Your task to perform on an android device: change the clock display to digital Image 0: 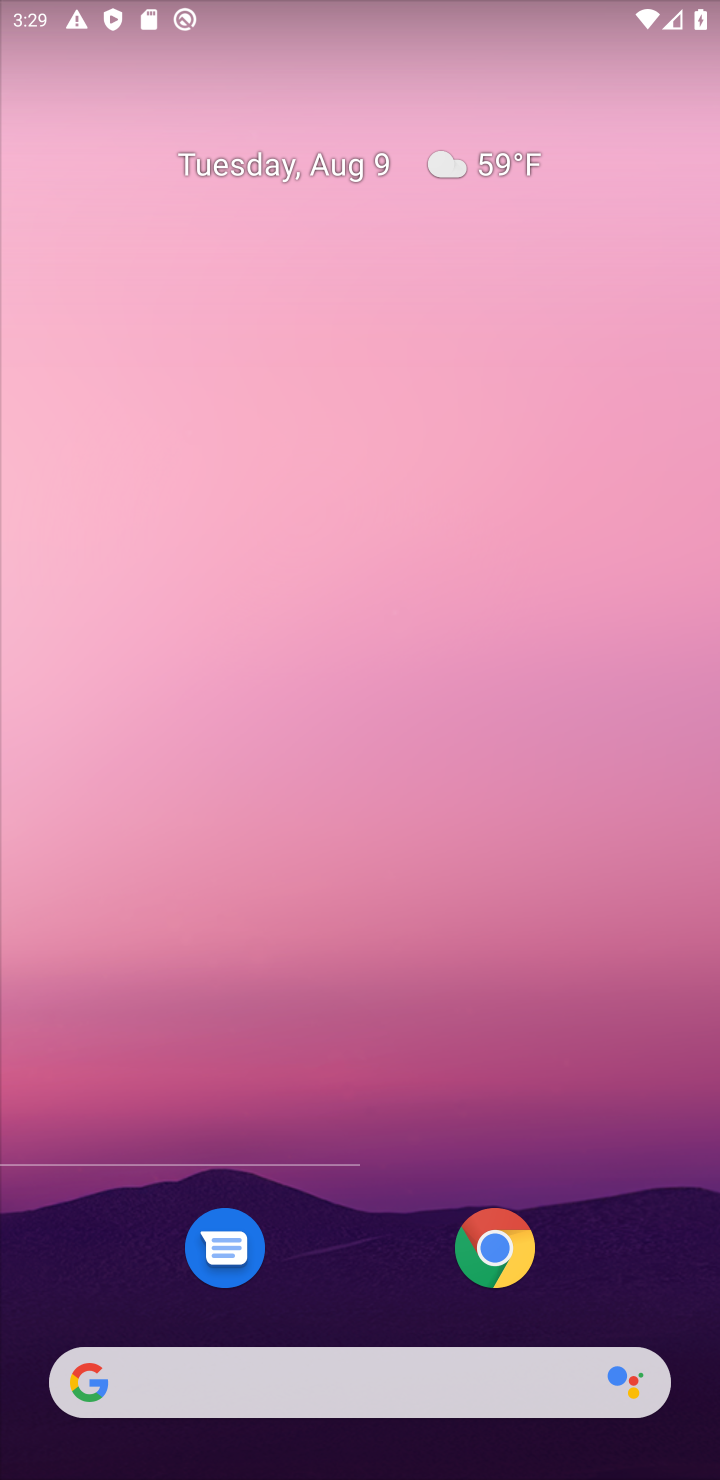
Step 0: press home button
Your task to perform on an android device: change the clock display to digital Image 1: 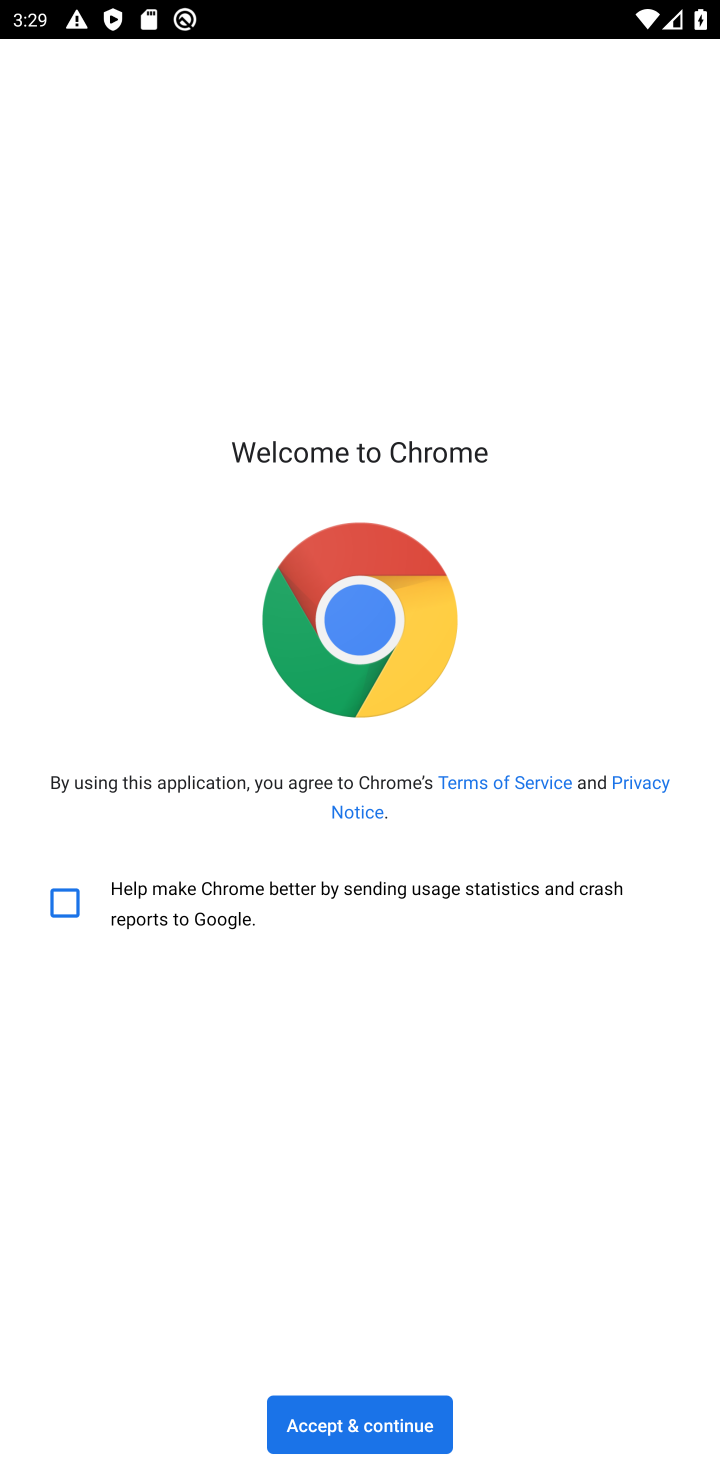
Step 1: press home button
Your task to perform on an android device: change the clock display to digital Image 2: 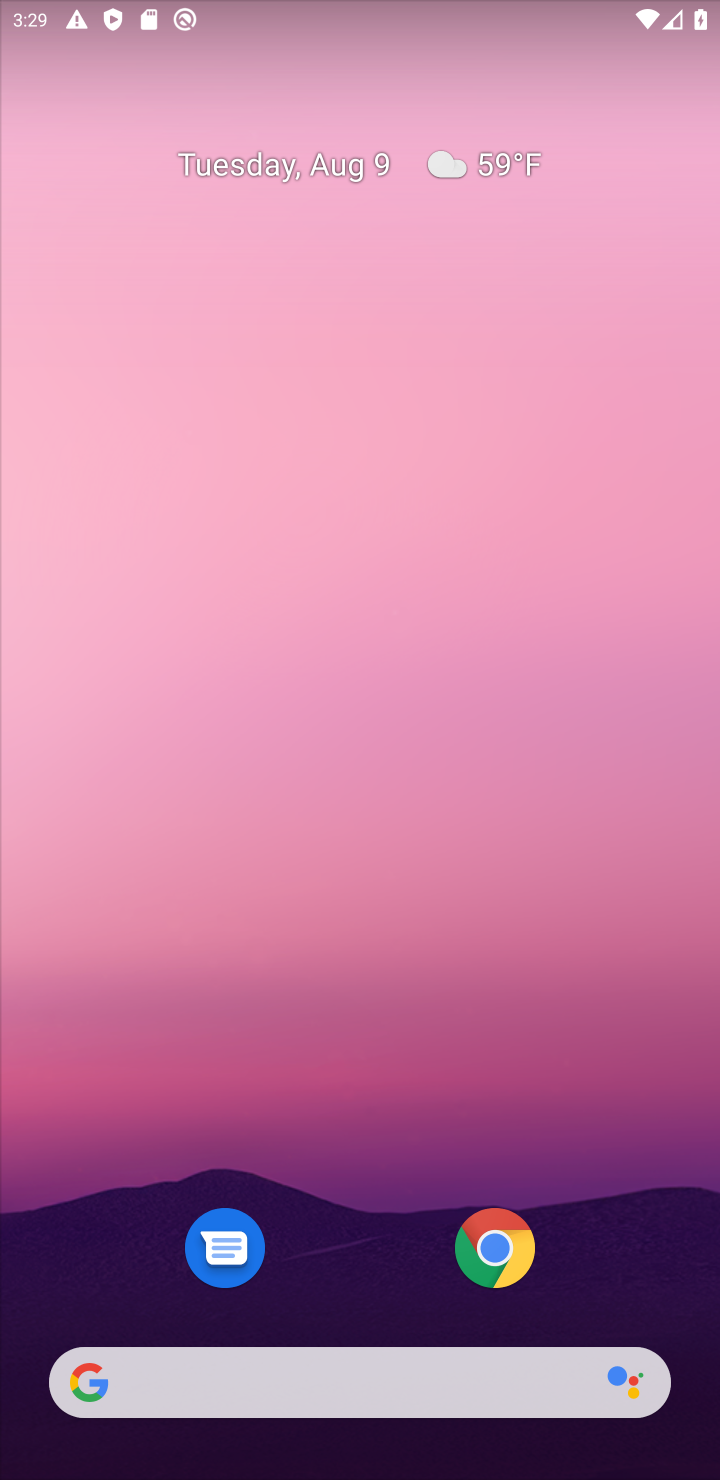
Step 2: press home button
Your task to perform on an android device: change the clock display to digital Image 3: 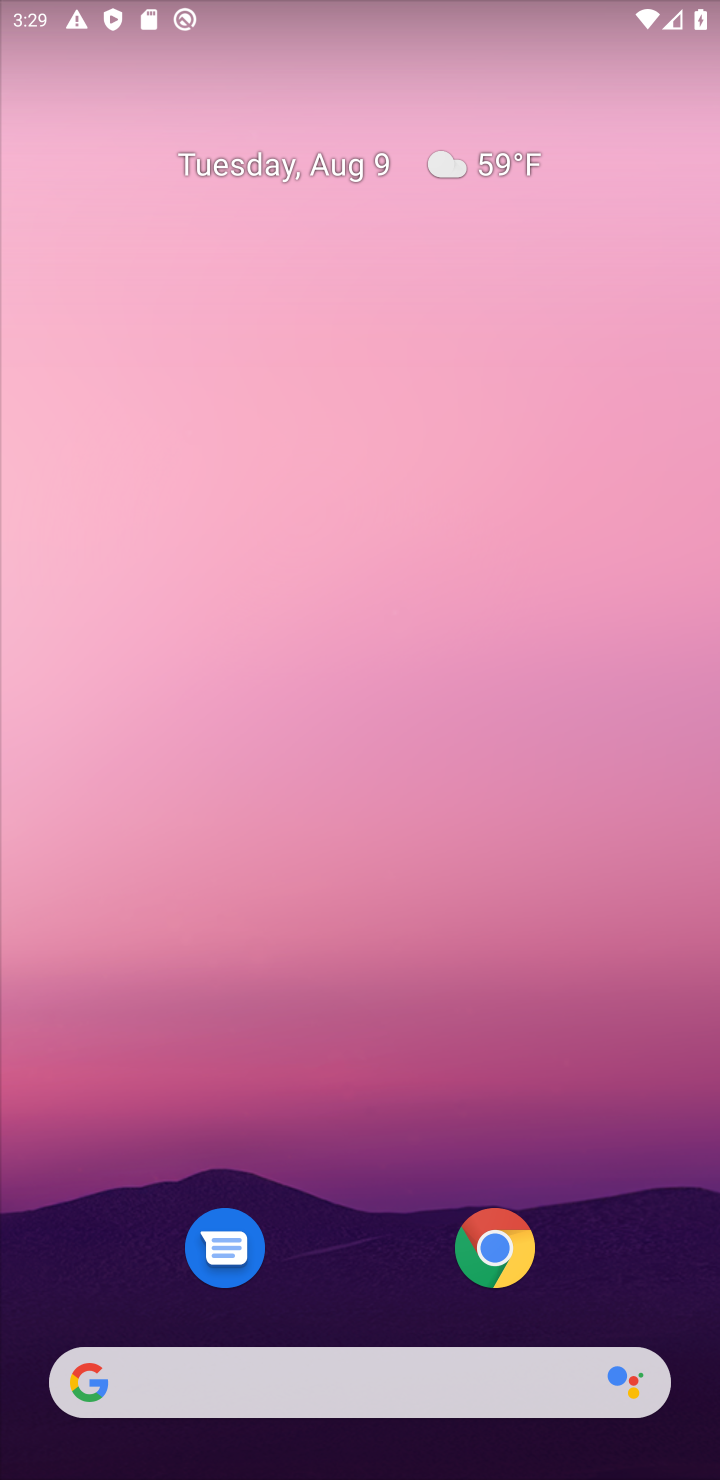
Step 3: drag from (319, 1091) to (4, 16)
Your task to perform on an android device: change the clock display to digital Image 4: 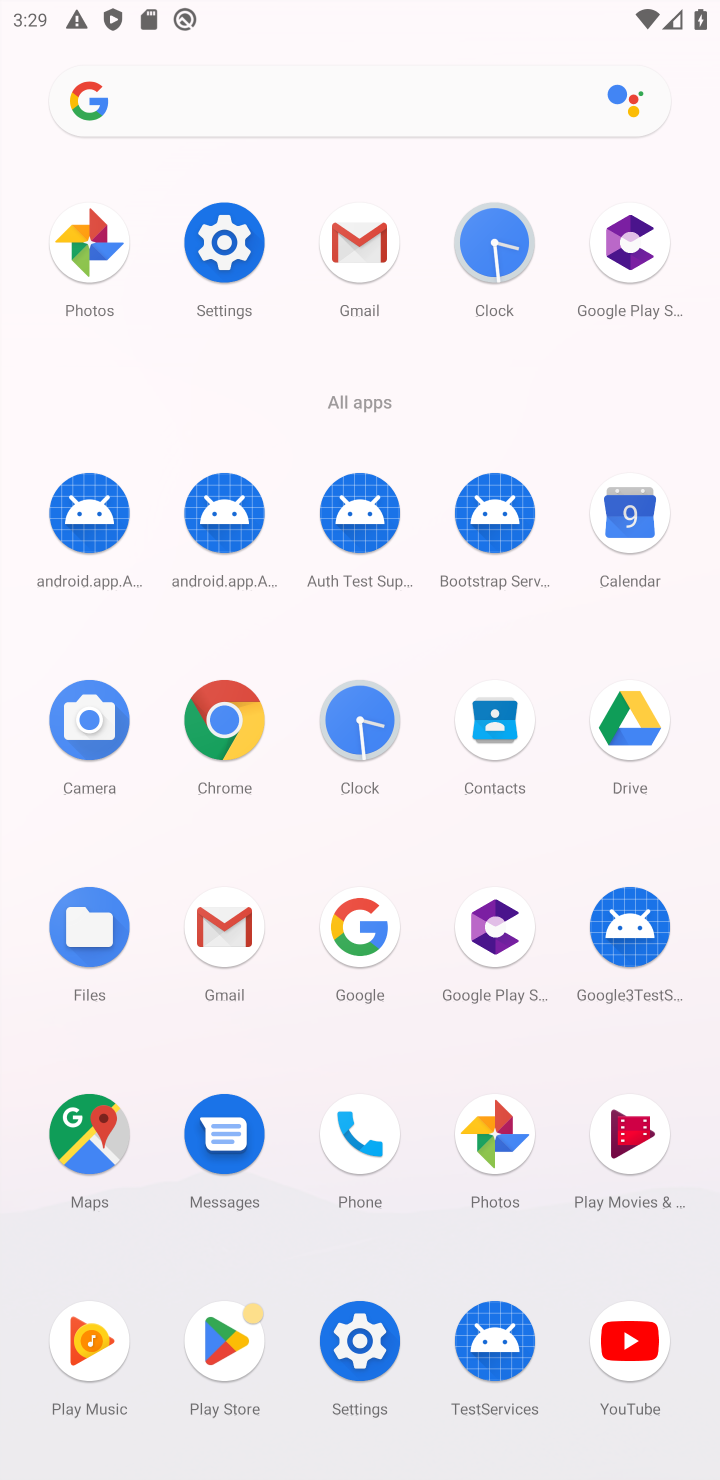
Step 4: click (370, 731)
Your task to perform on an android device: change the clock display to digital Image 5: 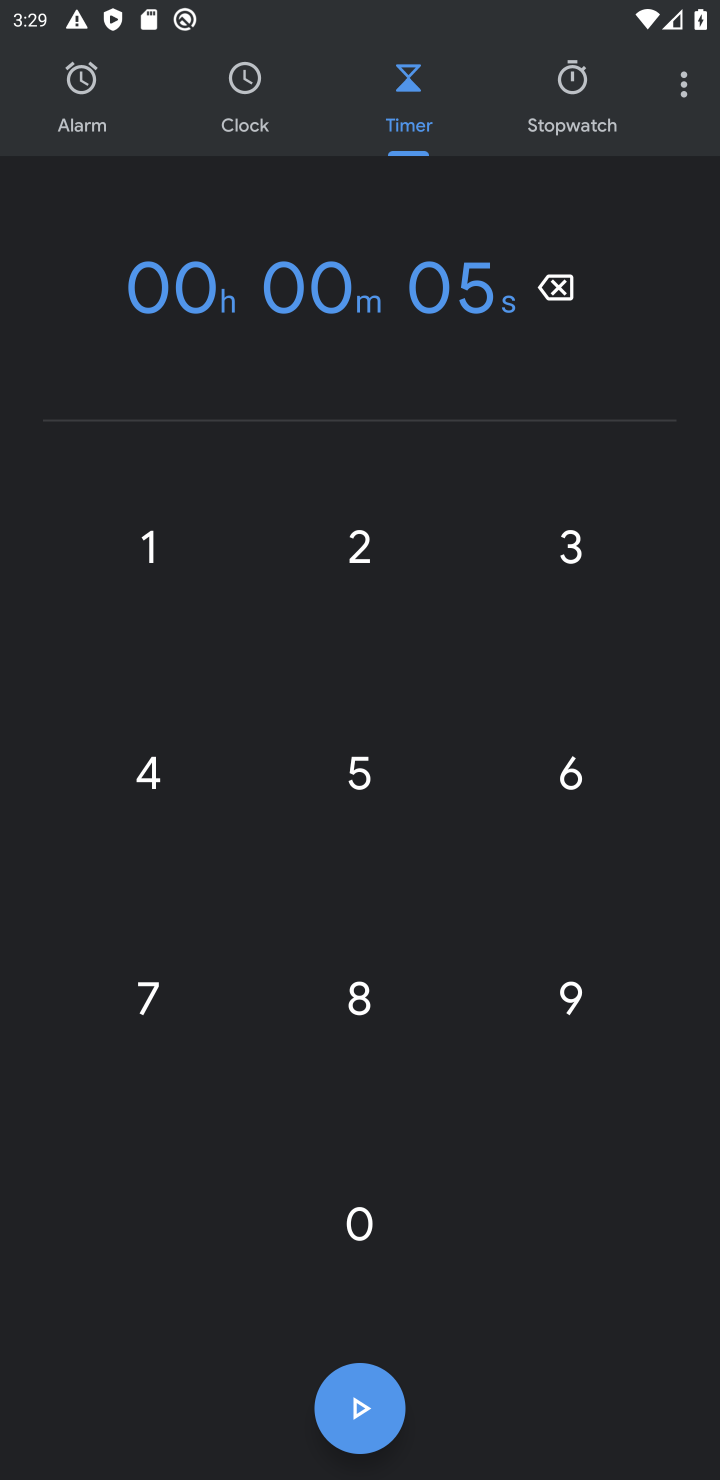
Step 5: click (669, 97)
Your task to perform on an android device: change the clock display to digital Image 6: 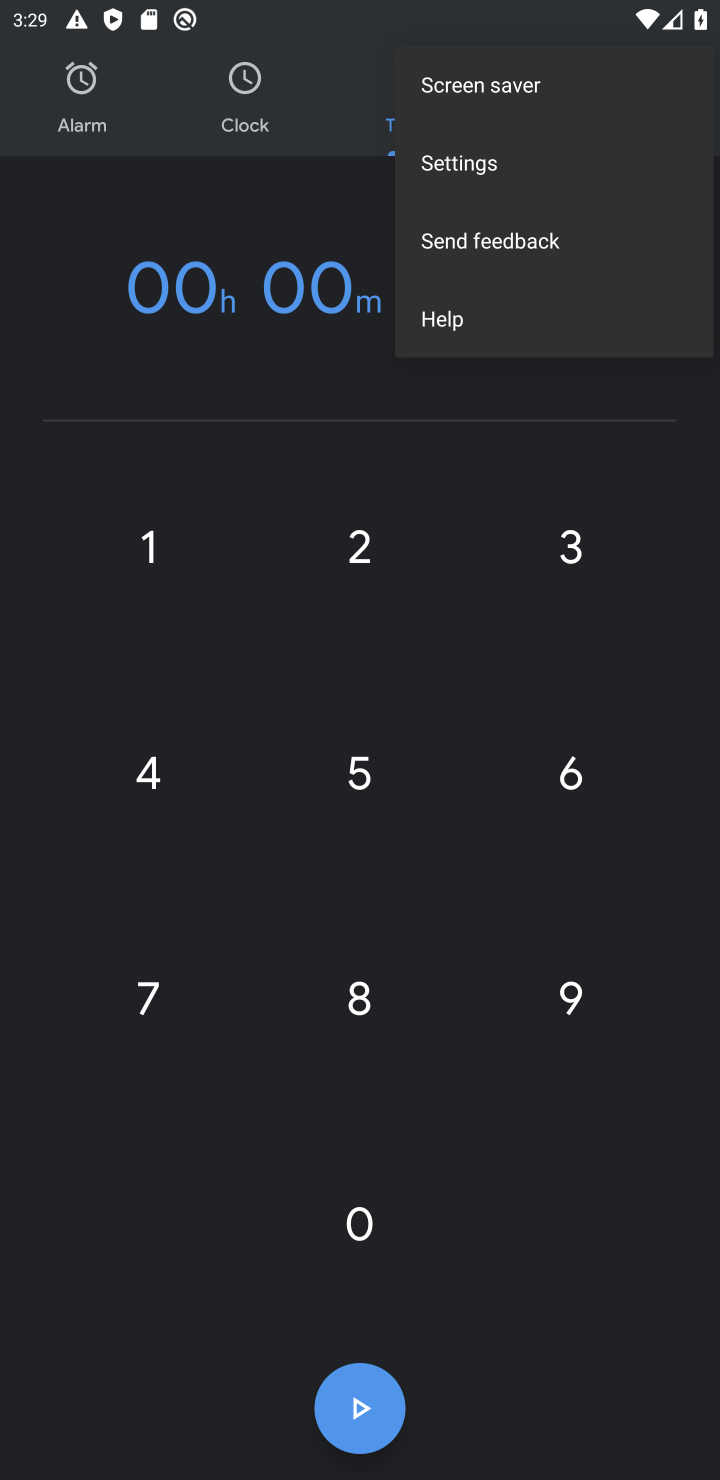
Step 6: click (476, 152)
Your task to perform on an android device: change the clock display to digital Image 7: 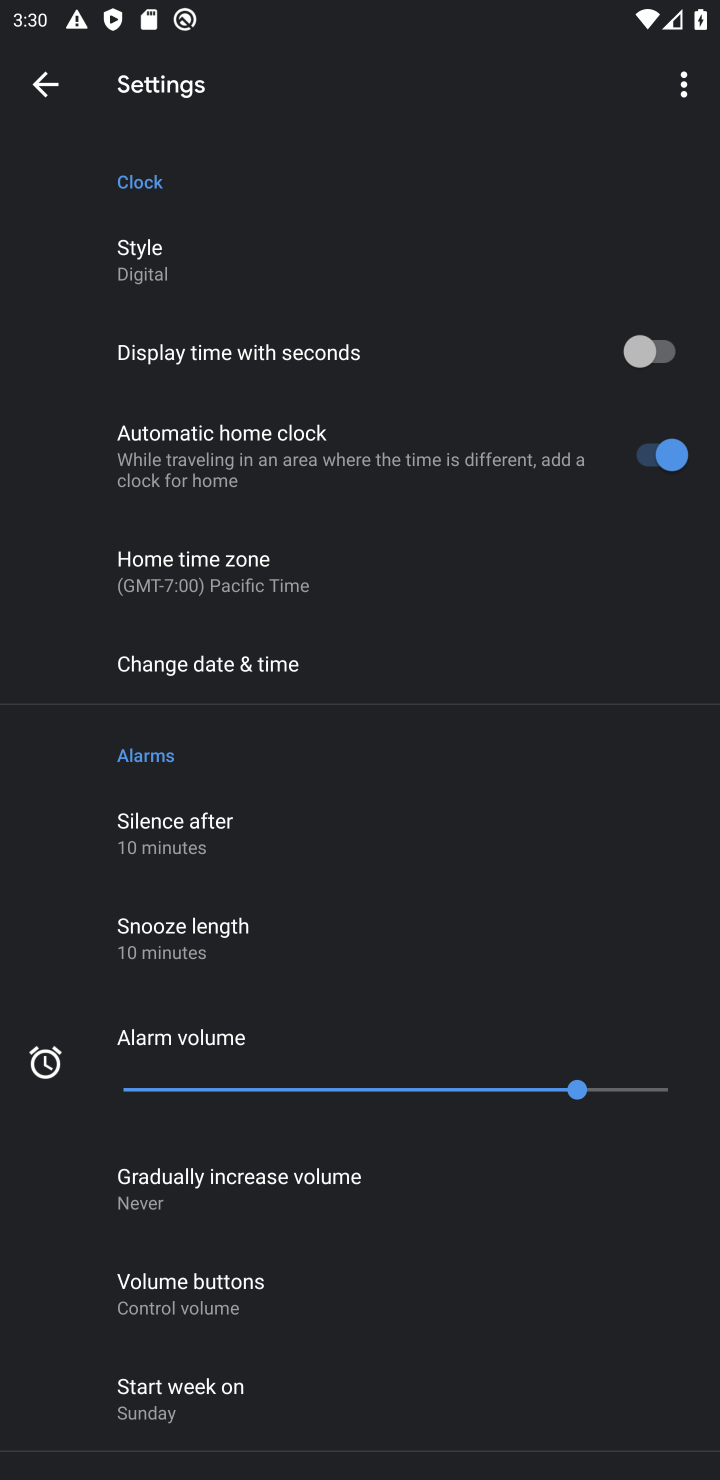
Step 7: task complete